Your task to perform on an android device: turn off wifi Image 0: 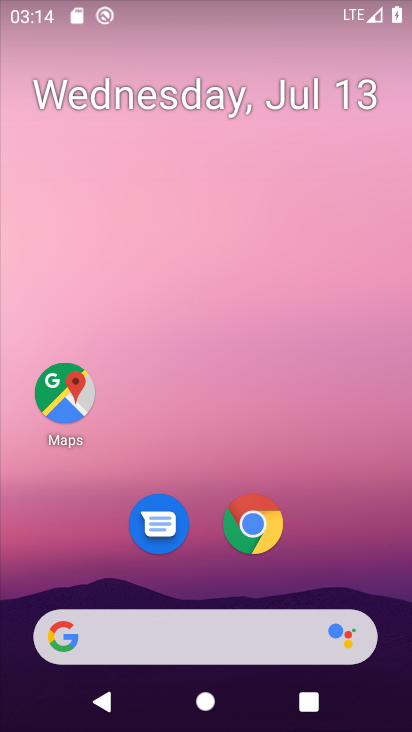
Step 0: drag from (342, 521) to (305, 72)
Your task to perform on an android device: turn off wifi Image 1: 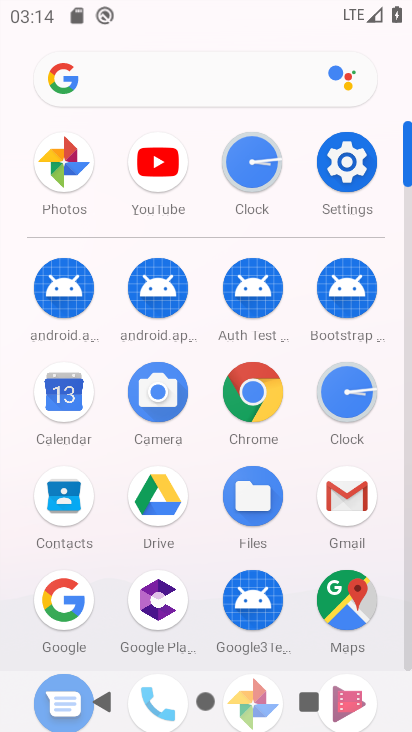
Step 1: click (357, 164)
Your task to perform on an android device: turn off wifi Image 2: 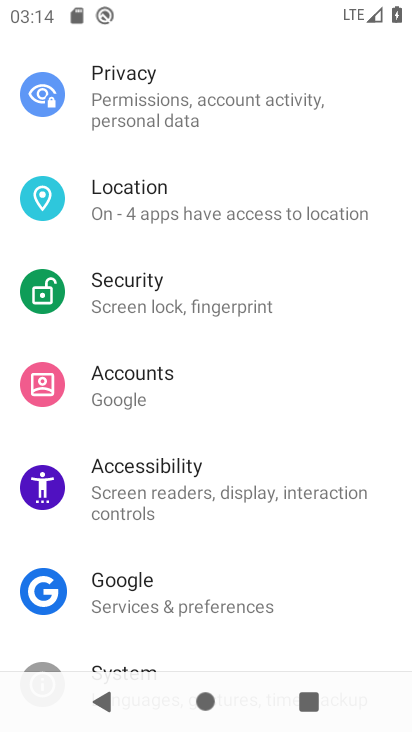
Step 2: drag from (255, 170) to (281, 599)
Your task to perform on an android device: turn off wifi Image 3: 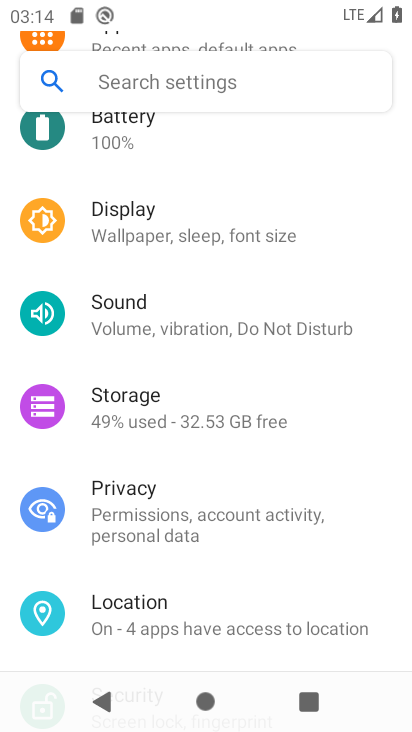
Step 3: drag from (216, 187) to (241, 574)
Your task to perform on an android device: turn off wifi Image 4: 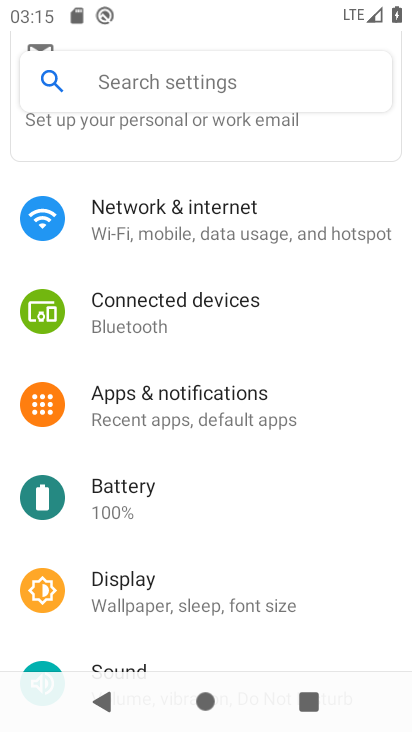
Step 4: click (182, 208)
Your task to perform on an android device: turn off wifi Image 5: 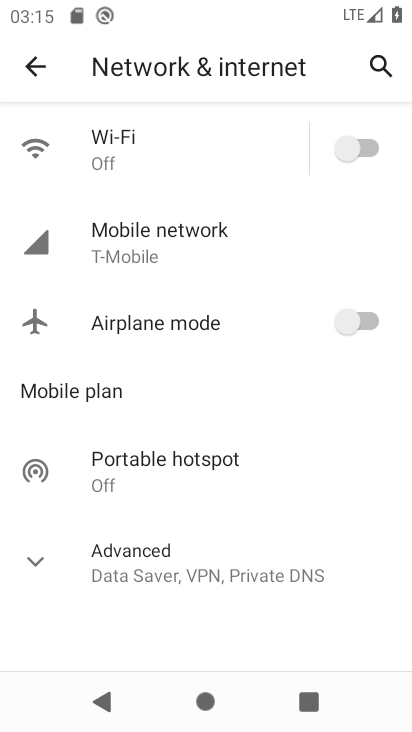
Step 5: task complete